Your task to perform on an android device: Open calendar and show me the fourth week of next month Image 0: 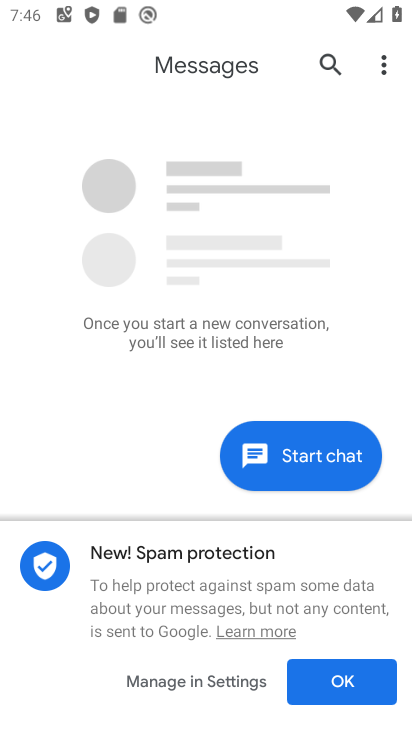
Step 0: press home button
Your task to perform on an android device: Open calendar and show me the fourth week of next month Image 1: 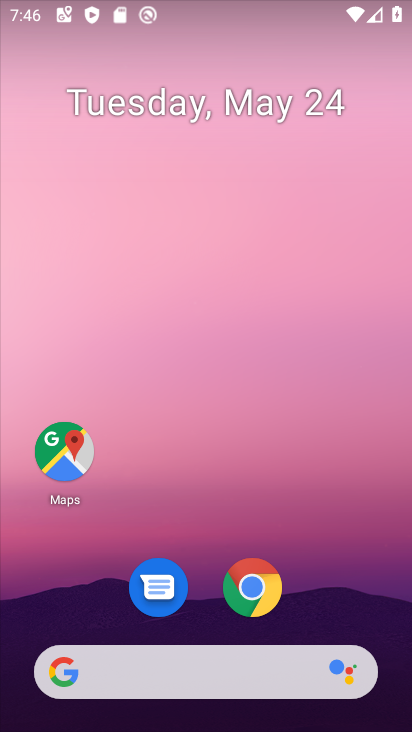
Step 1: drag from (326, 597) to (330, 12)
Your task to perform on an android device: Open calendar and show me the fourth week of next month Image 2: 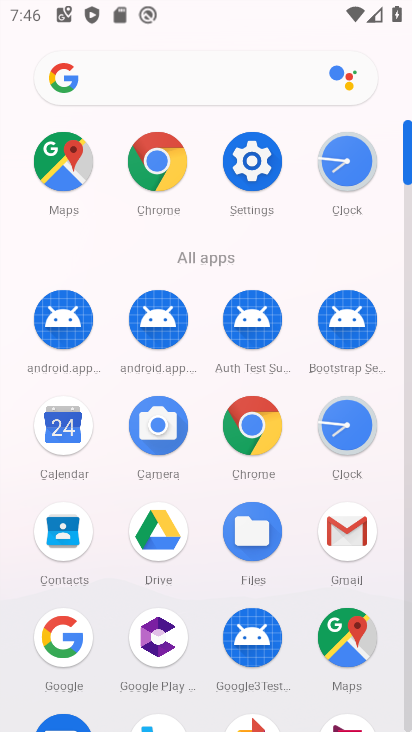
Step 2: click (65, 430)
Your task to perform on an android device: Open calendar and show me the fourth week of next month Image 3: 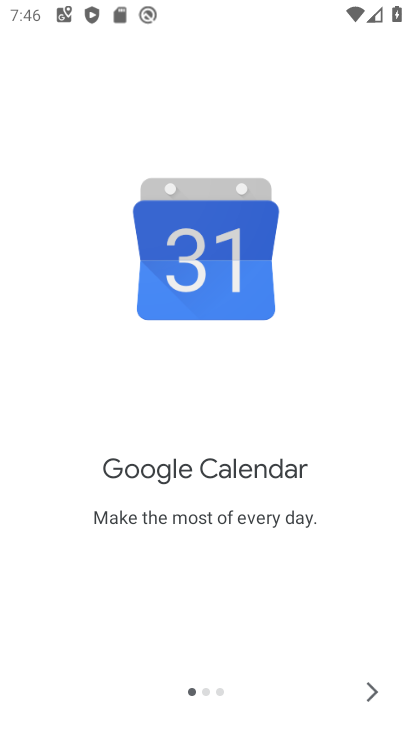
Step 3: click (362, 697)
Your task to perform on an android device: Open calendar and show me the fourth week of next month Image 4: 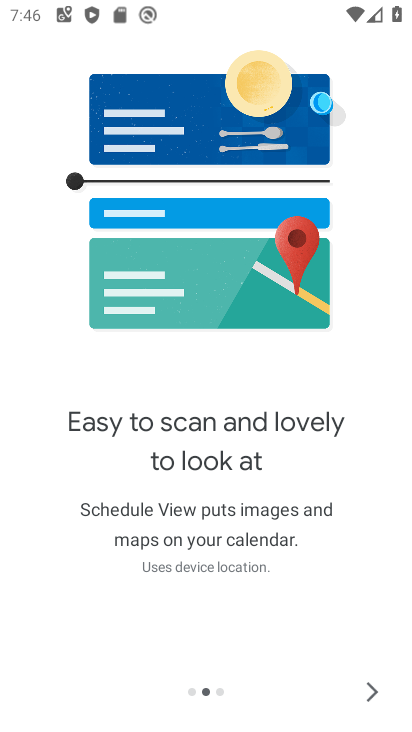
Step 4: click (369, 687)
Your task to perform on an android device: Open calendar and show me the fourth week of next month Image 5: 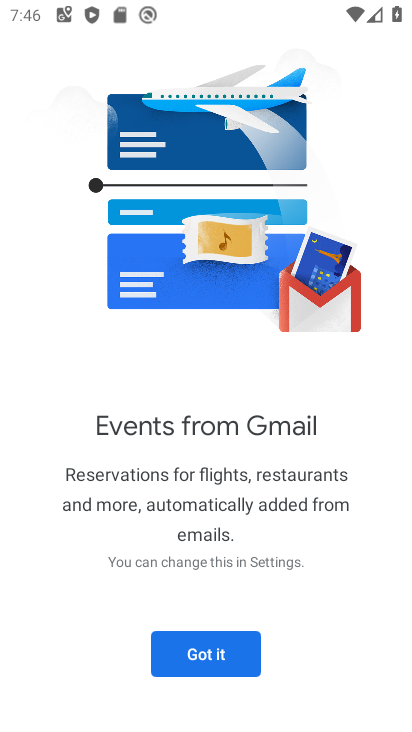
Step 5: click (243, 650)
Your task to perform on an android device: Open calendar and show me the fourth week of next month Image 6: 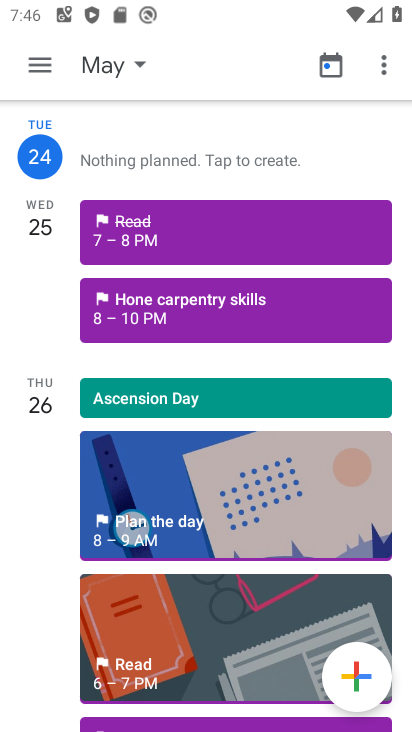
Step 6: click (111, 67)
Your task to perform on an android device: Open calendar and show me the fourth week of next month Image 7: 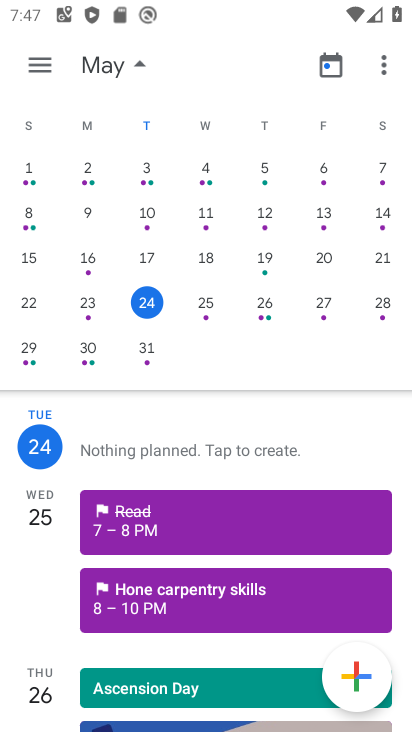
Step 7: drag from (371, 286) to (21, 240)
Your task to perform on an android device: Open calendar and show me the fourth week of next month Image 8: 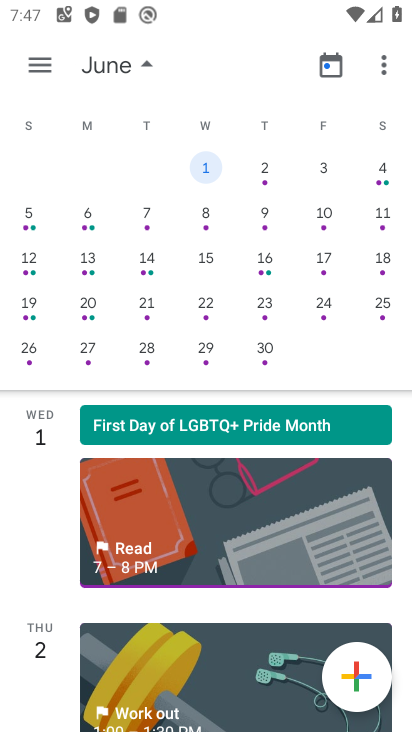
Step 8: click (41, 309)
Your task to perform on an android device: Open calendar and show me the fourth week of next month Image 9: 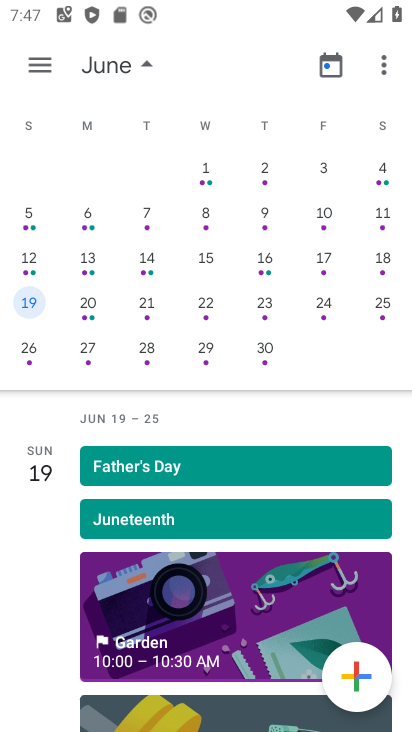
Step 9: task complete